Your task to perform on an android device: open chrome and create a bookmark for the current page Image 0: 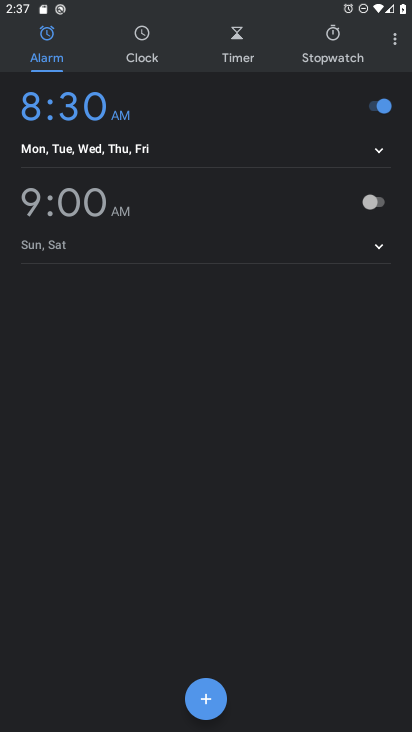
Step 0: press home button
Your task to perform on an android device: open chrome and create a bookmark for the current page Image 1: 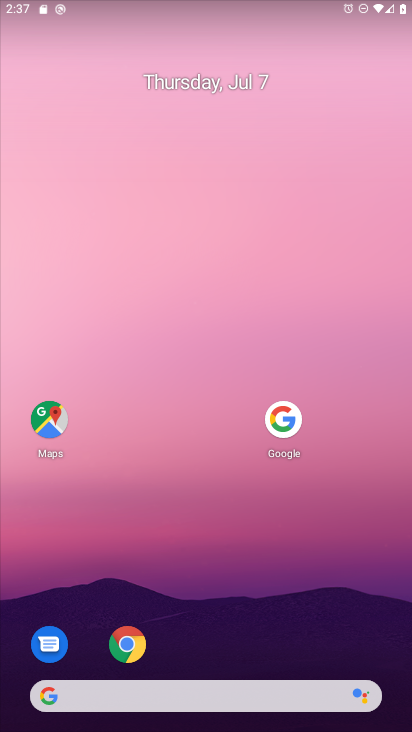
Step 1: click (128, 638)
Your task to perform on an android device: open chrome and create a bookmark for the current page Image 2: 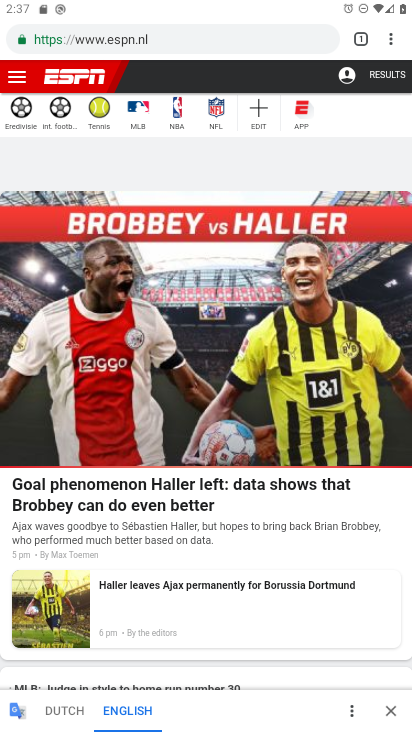
Step 2: click (389, 48)
Your task to perform on an android device: open chrome and create a bookmark for the current page Image 3: 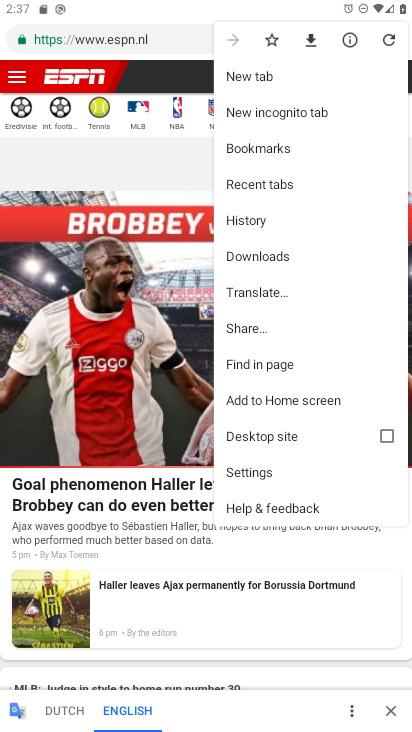
Step 3: click (270, 41)
Your task to perform on an android device: open chrome and create a bookmark for the current page Image 4: 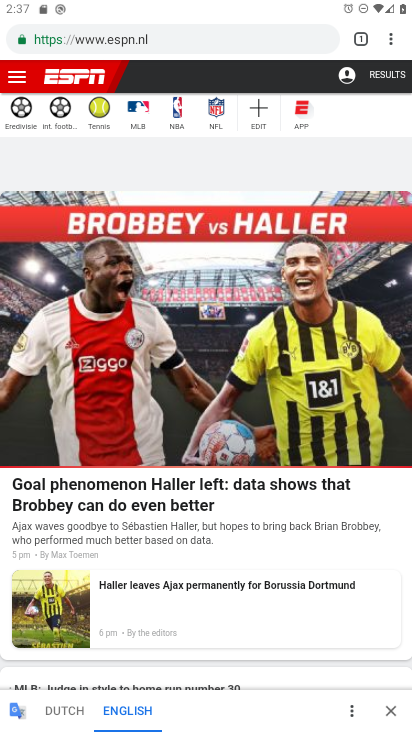
Step 4: task complete